Your task to perform on an android device: turn off picture-in-picture Image 0: 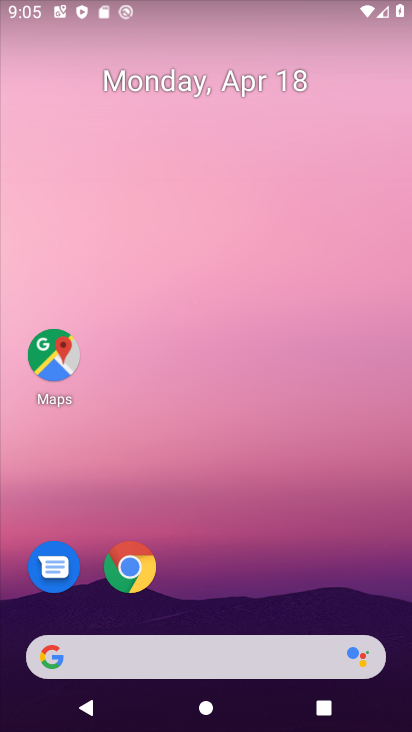
Step 0: drag from (204, 469) to (227, 9)
Your task to perform on an android device: turn off picture-in-picture Image 1: 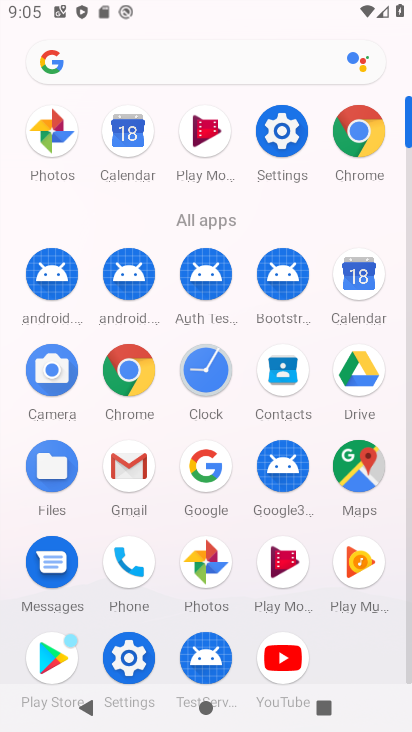
Step 1: click (284, 147)
Your task to perform on an android device: turn off picture-in-picture Image 2: 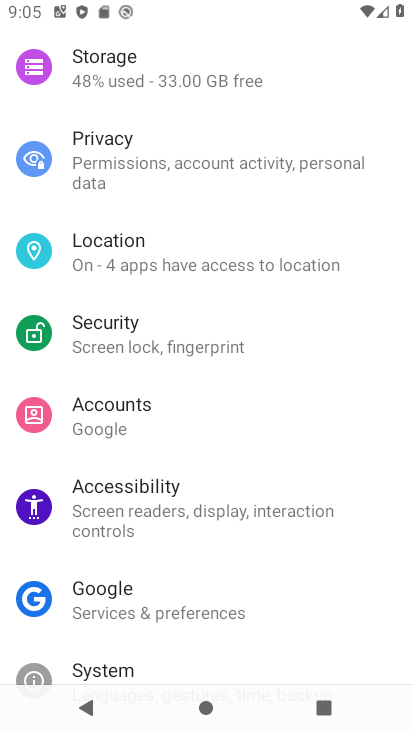
Step 2: drag from (227, 230) to (214, 639)
Your task to perform on an android device: turn off picture-in-picture Image 3: 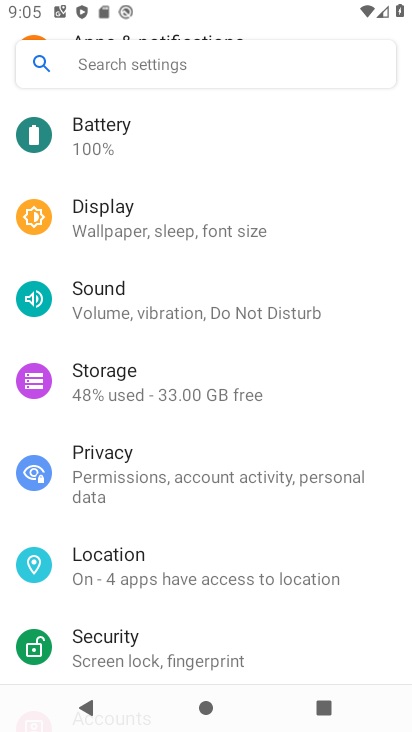
Step 3: drag from (200, 207) to (182, 550)
Your task to perform on an android device: turn off picture-in-picture Image 4: 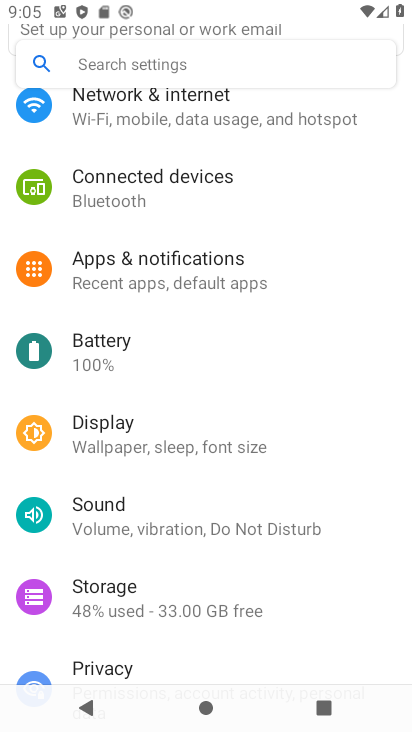
Step 4: click (170, 271)
Your task to perform on an android device: turn off picture-in-picture Image 5: 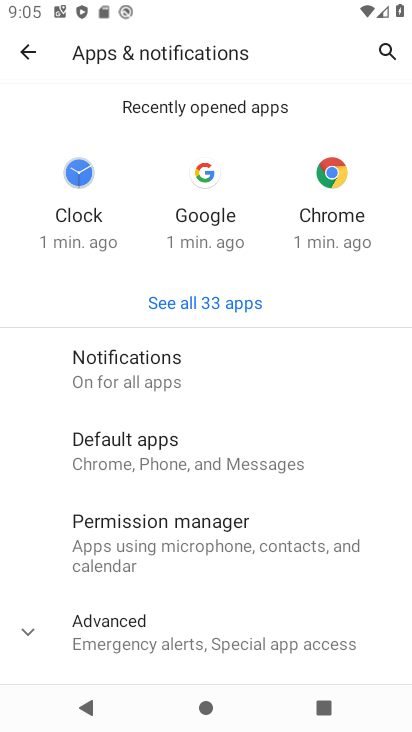
Step 5: click (144, 632)
Your task to perform on an android device: turn off picture-in-picture Image 6: 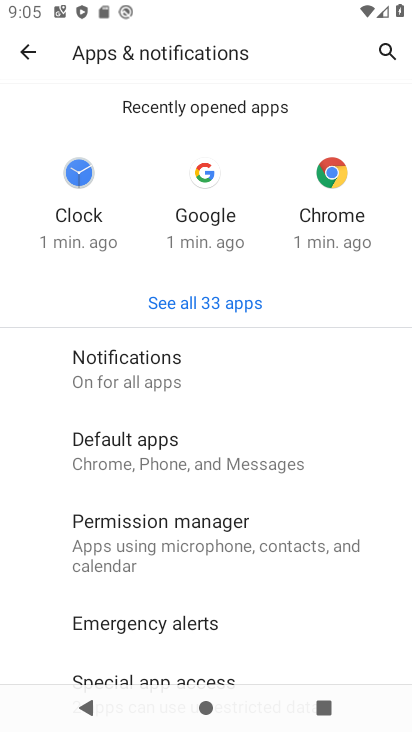
Step 6: drag from (171, 519) to (233, 200)
Your task to perform on an android device: turn off picture-in-picture Image 7: 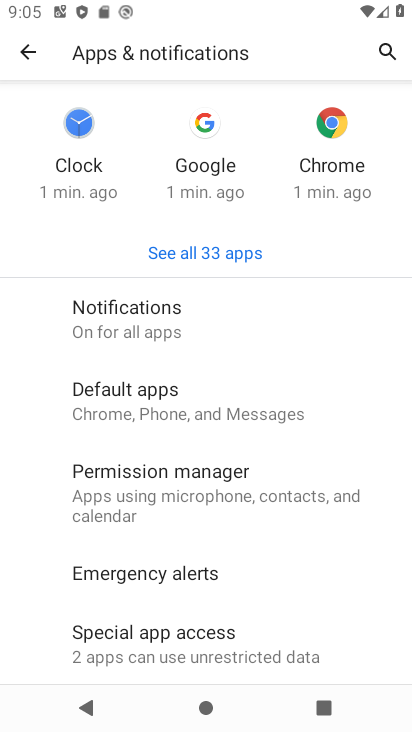
Step 7: click (164, 644)
Your task to perform on an android device: turn off picture-in-picture Image 8: 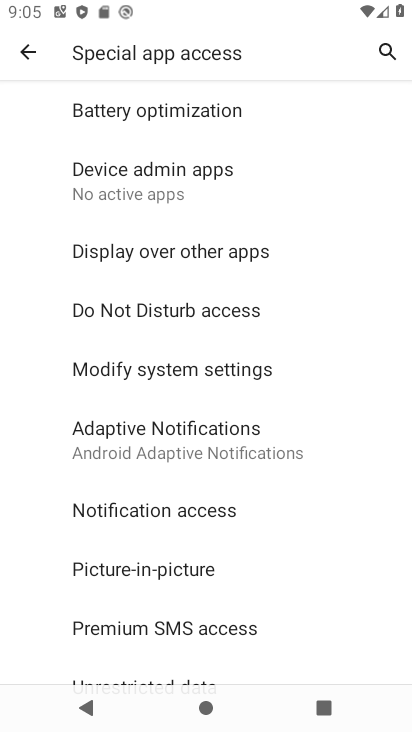
Step 8: click (188, 577)
Your task to perform on an android device: turn off picture-in-picture Image 9: 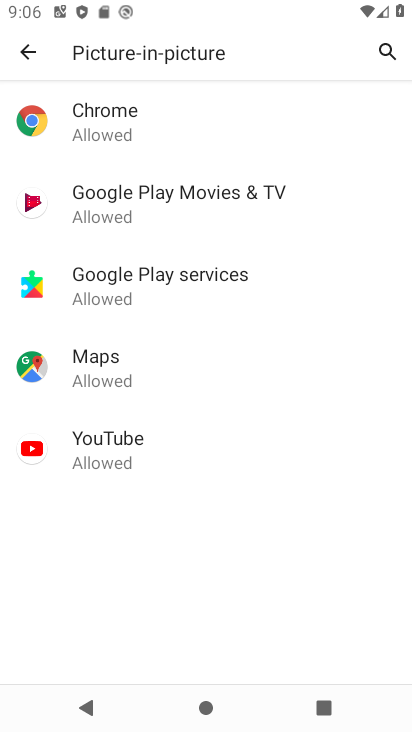
Step 9: click (149, 450)
Your task to perform on an android device: turn off picture-in-picture Image 10: 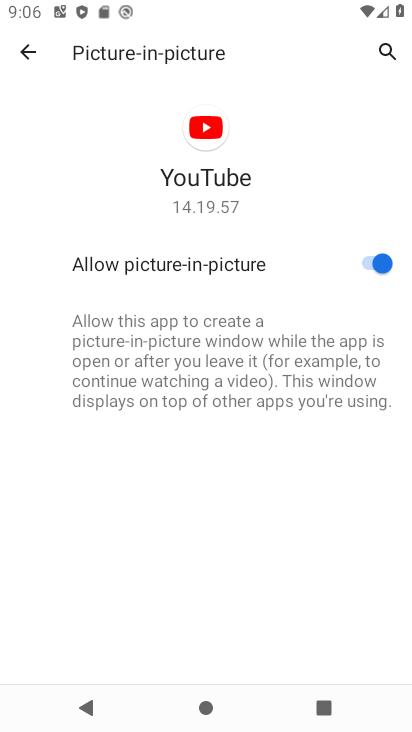
Step 10: click (370, 257)
Your task to perform on an android device: turn off picture-in-picture Image 11: 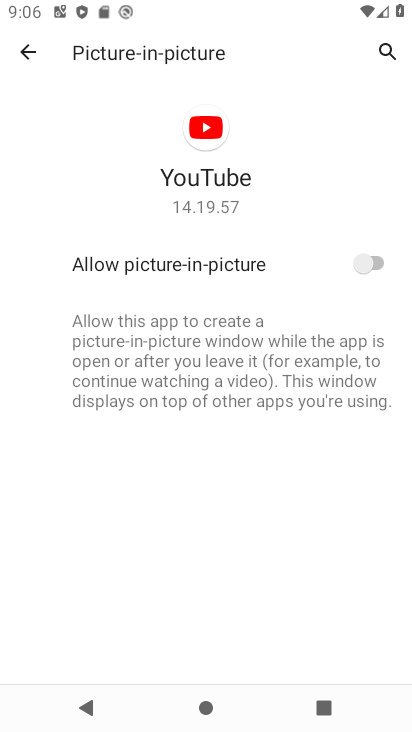
Step 11: task complete